Your task to perform on an android device: turn off priority inbox in the gmail app Image 0: 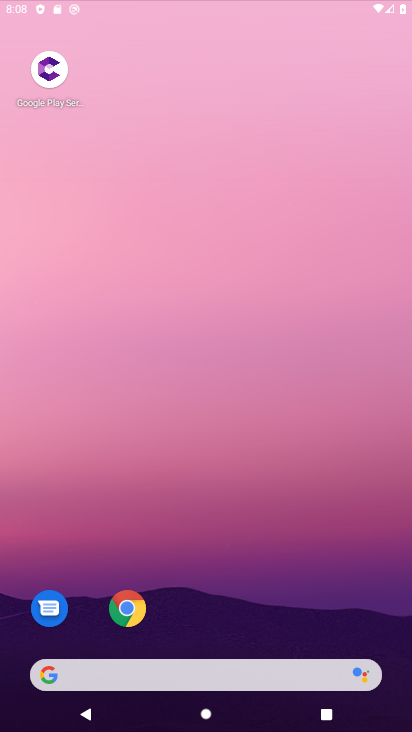
Step 0: click (133, 604)
Your task to perform on an android device: turn off priority inbox in the gmail app Image 1: 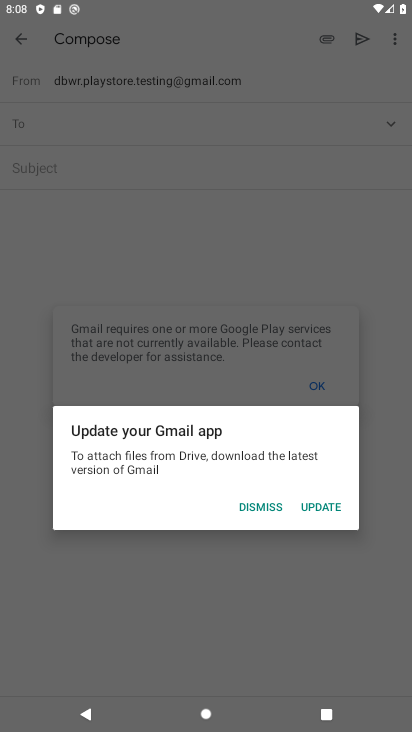
Step 1: press home button
Your task to perform on an android device: turn off priority inbox in the gmail app Image 2: 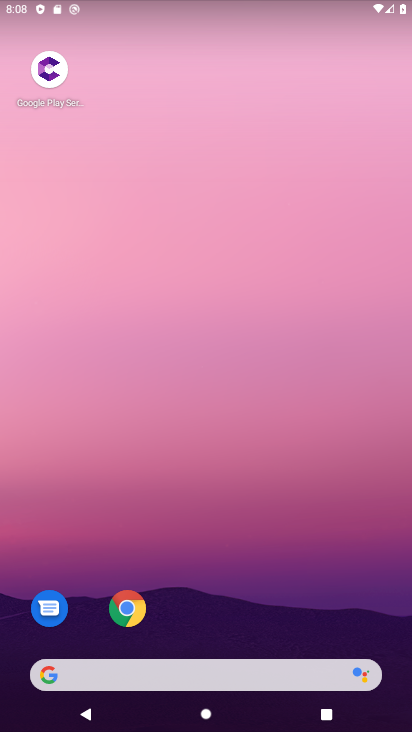
Step 2: drag from (204, 624) to (184, 83)
Your task to perform on an android device: turn off priority inbox in the gmail app Image 3: 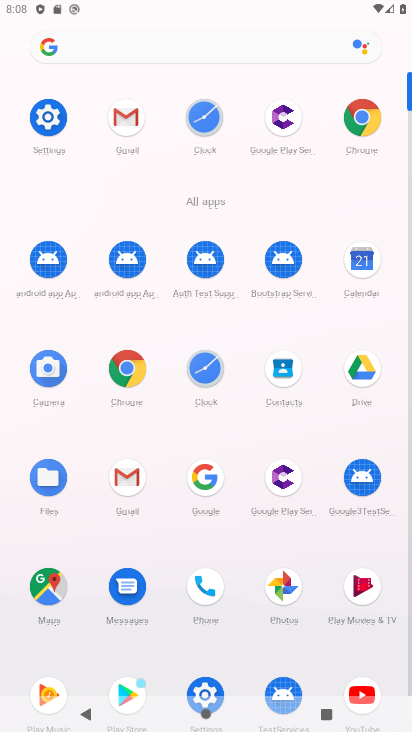
Step 3: click (119, 113)
Your task to perform on an android device: turn off priority inbox in the gmail app Image 4: 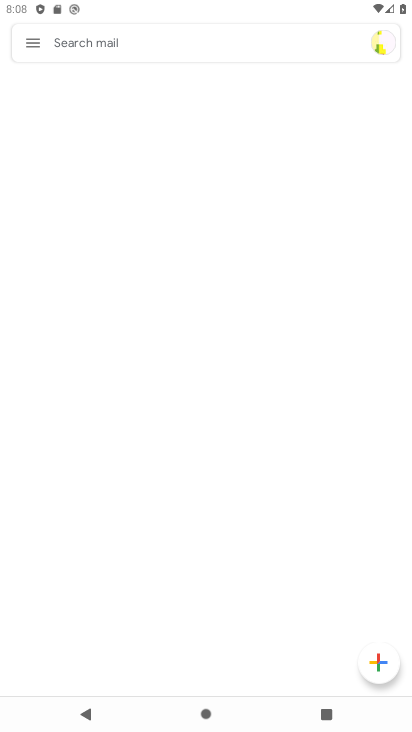
Step 4: click (37, 49)
Your task to perform on an android device: turn off priority inbox in the gmail app Image 5: 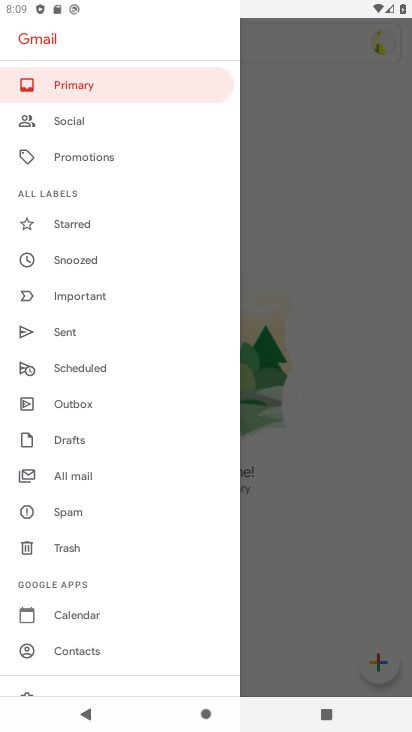
Step 5: drag from (105, 563) to (176, 56)
Your task to perform on an android device: turn off priority inbox in the gmail app Image 6: 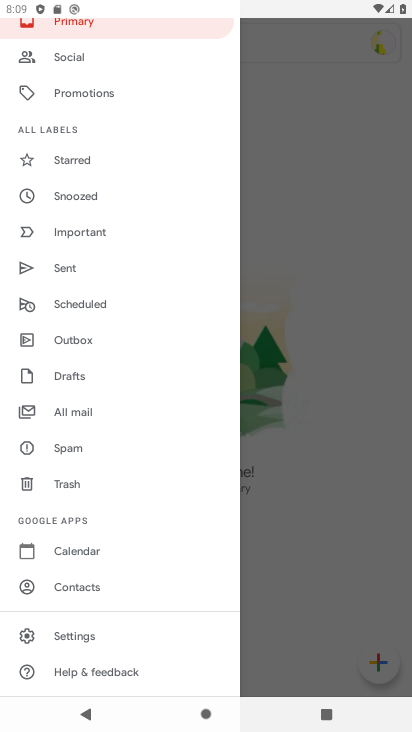
Step 6: click (71, 640)
Your task to perform on an android device: turn off priority inbox in the gmail app Image 7: 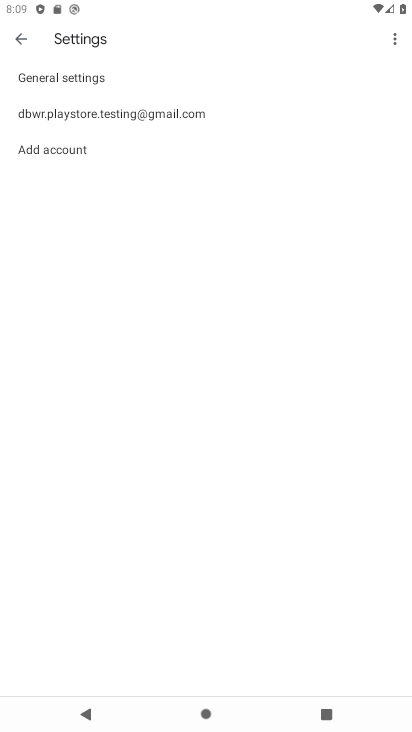
Step 7: click (180, 106)
Your task to perform on an android device: turn off priority inbox in the gmail app Image 8: 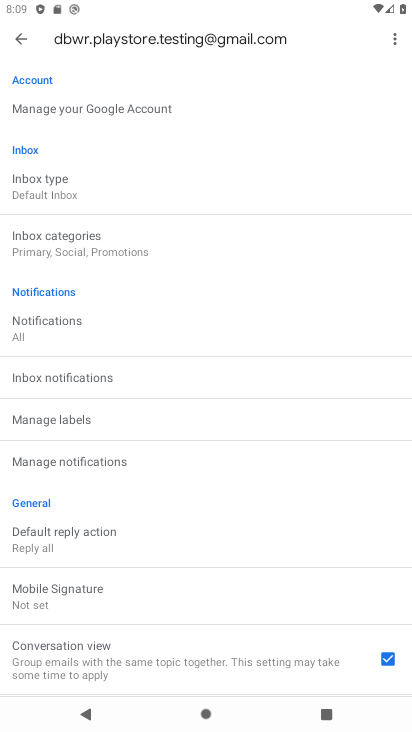
Step 8: click (123, 208)
Your task to perform on an android device: turn off priority inbox in the gmail app Image 9: 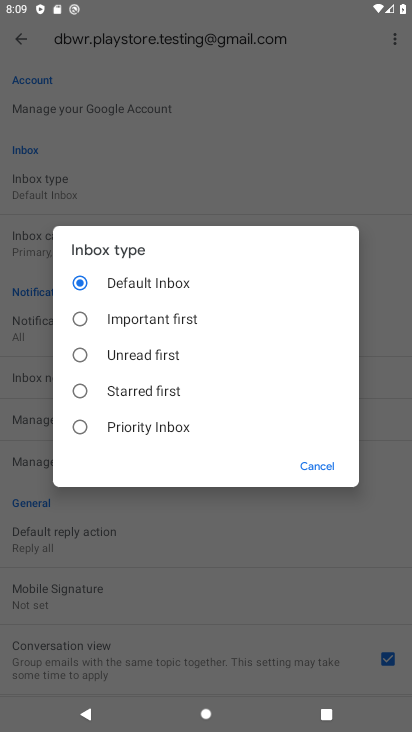
Step 9: task complete